Your task to perform on an android device: Show me recent news Image 0: 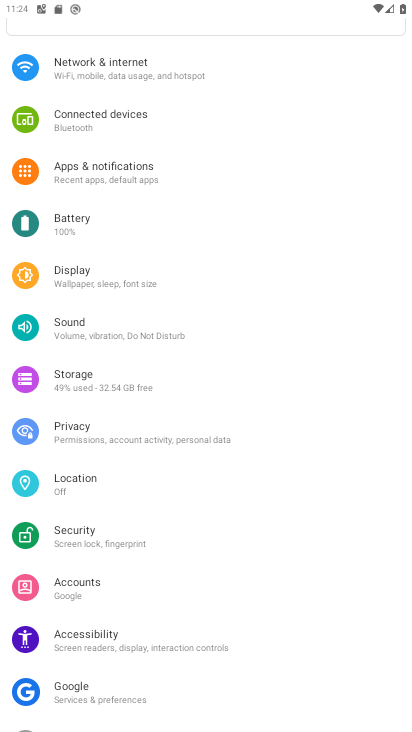
Step 0: press home button
Your task to perform on an android device: Show me recent news Image 1: 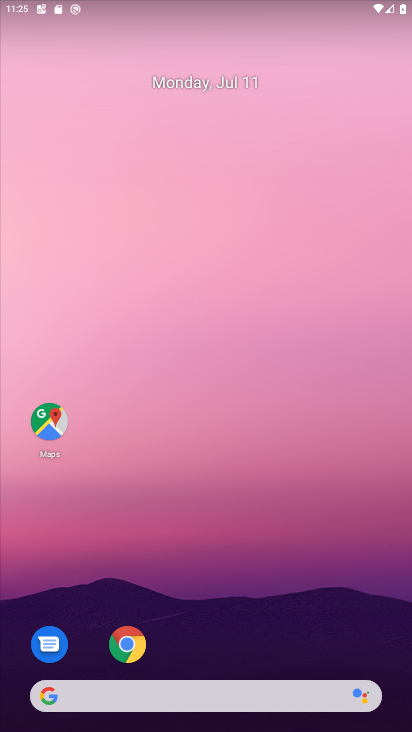
Step 1: click (232, 701)
Your task to perform on an android device: Show me recent news Image 2: 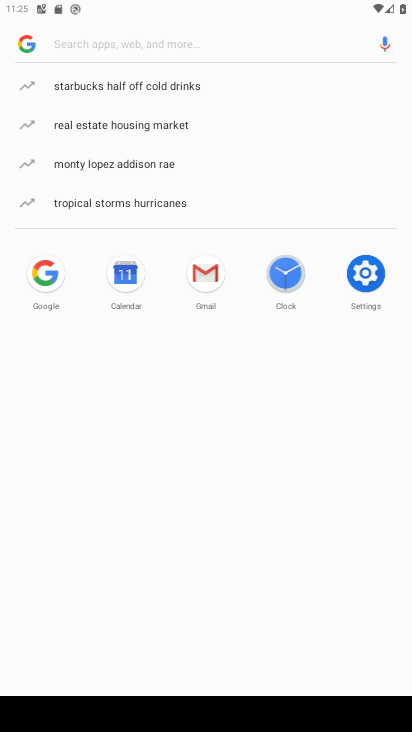
Step 2: type "recent news"
Your task to perform on an android device: Show me recent news Image 3: 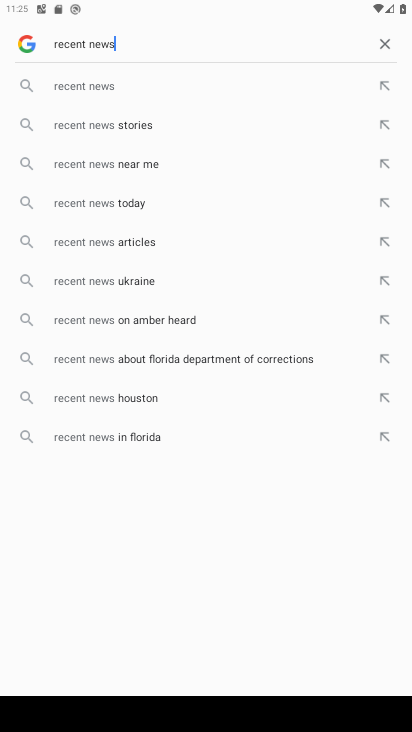
Step 3: click (160, 80)
Your task to perform on an android device: Show me recent news Image 4: 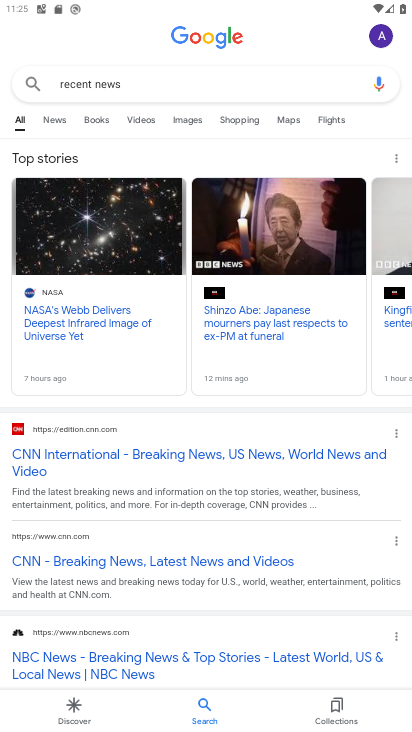
Step 4: click (57, 125)
Your task to perform on an android device: Show me recent news Image 5: 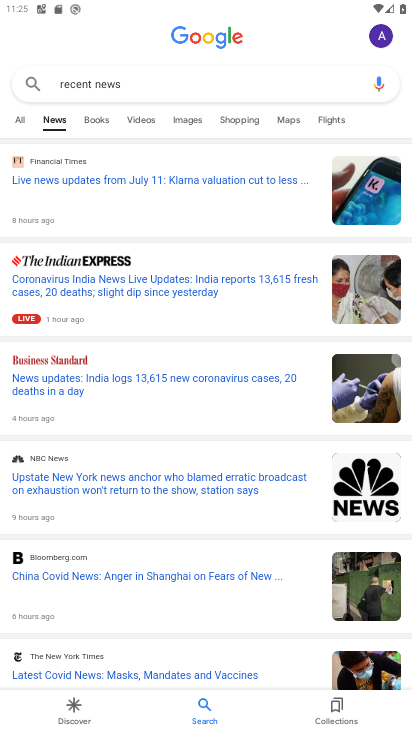
Step 5: task complete